Your task to perform on an android device: Check the news Image 0: 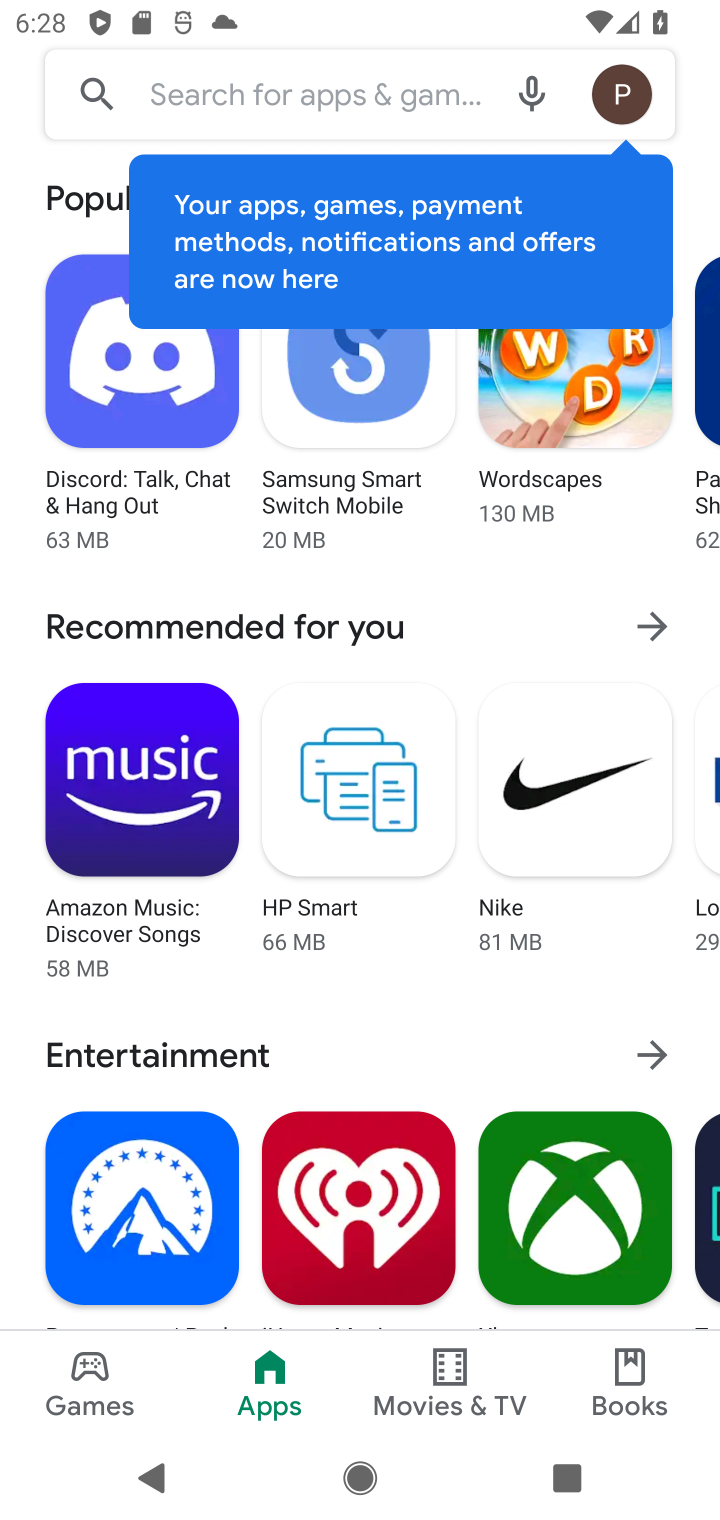
Step 0: press home button
Your task to perform on an android device: Check the news Image 1: 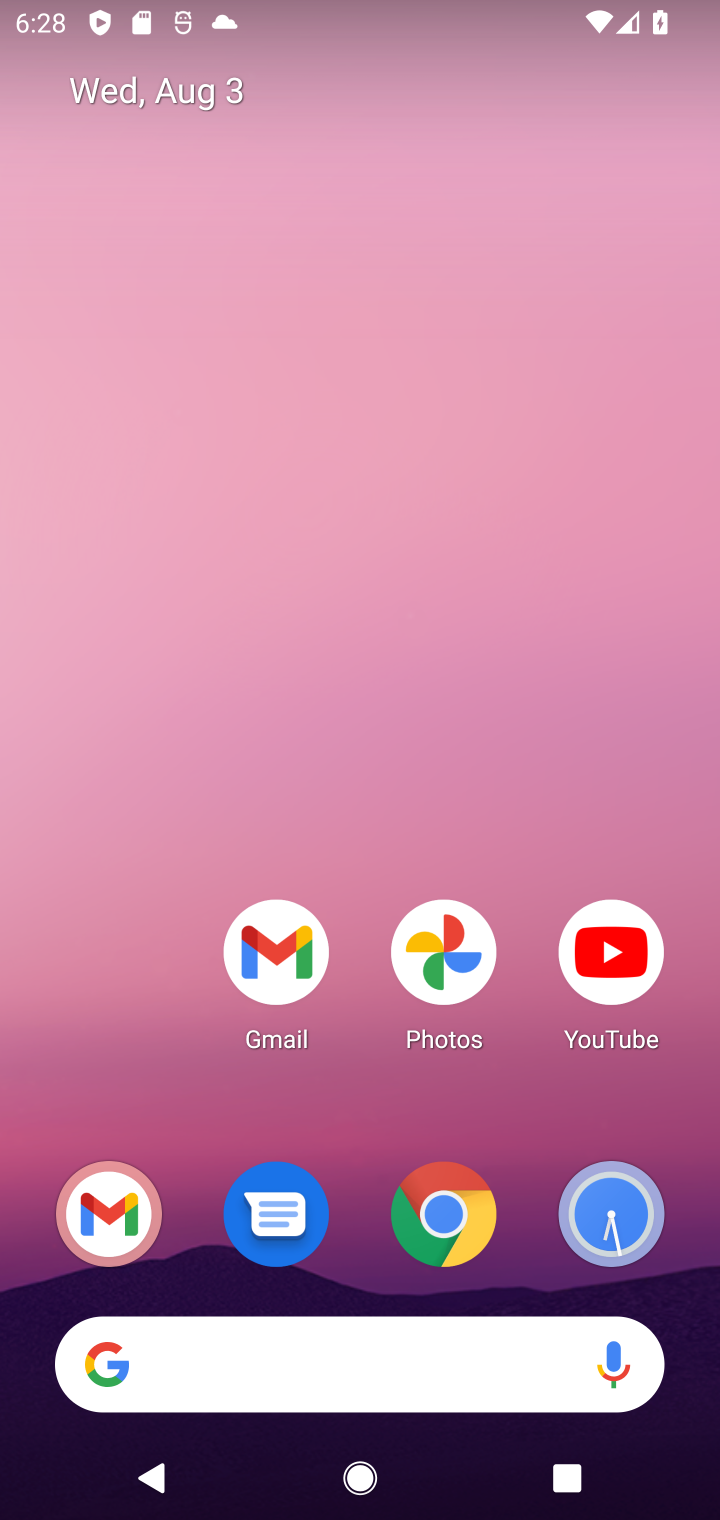
Step 1: drag from (27, 880) to (189, 23)
Your task to perform on an android device: Check the news Image 2: 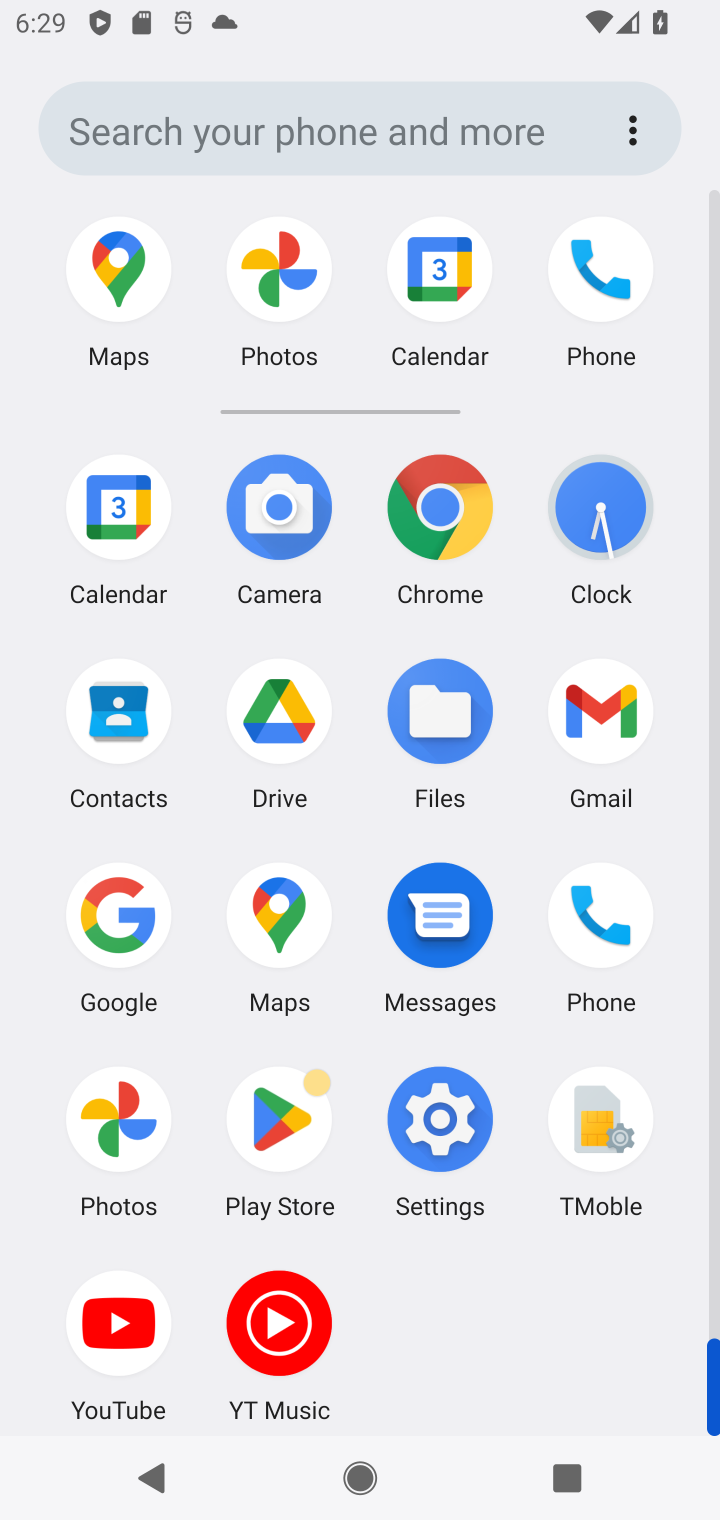
Step 2: click (430, 515)
Your task to perform on an android device: Check the news Image 3: 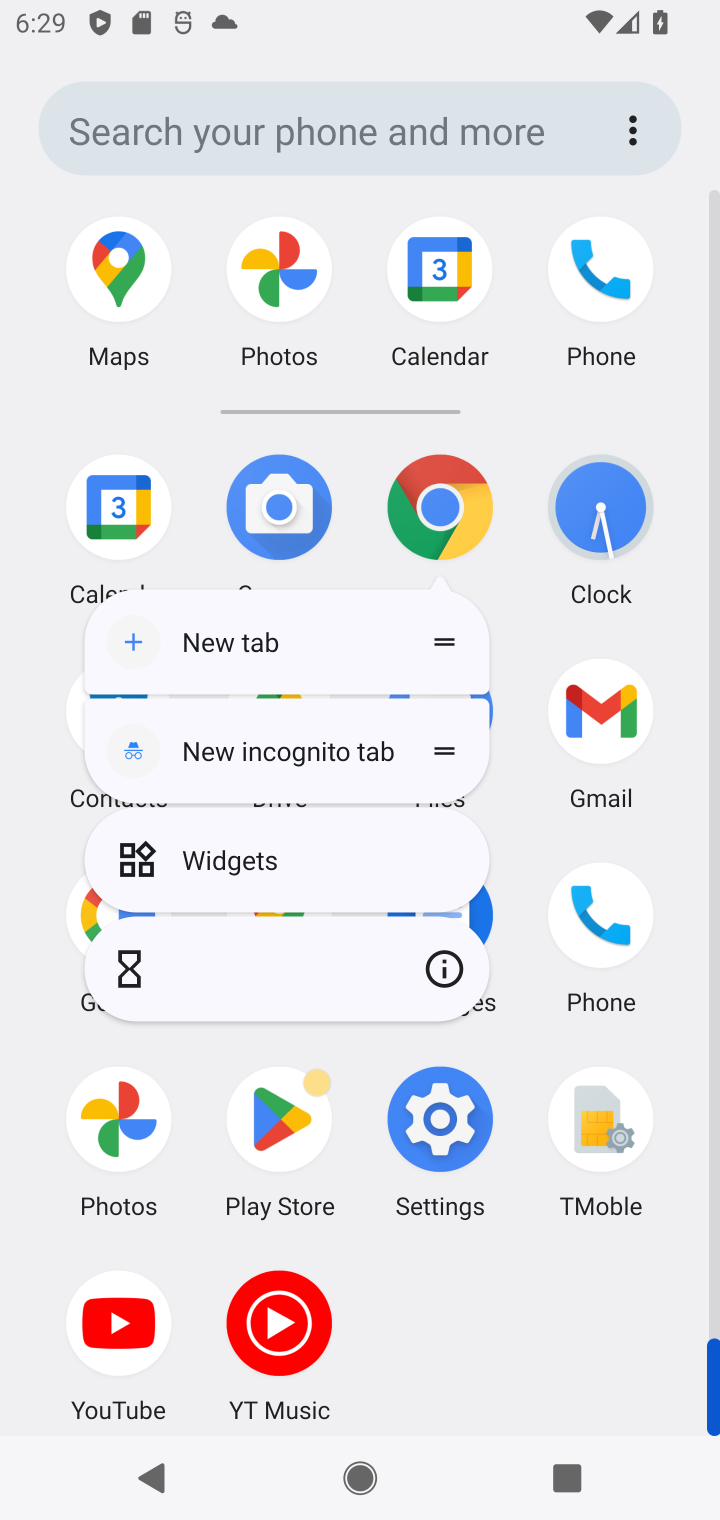
Step 3: click (430, 515)
Your task to perform on an android device: Check the news Image 4: 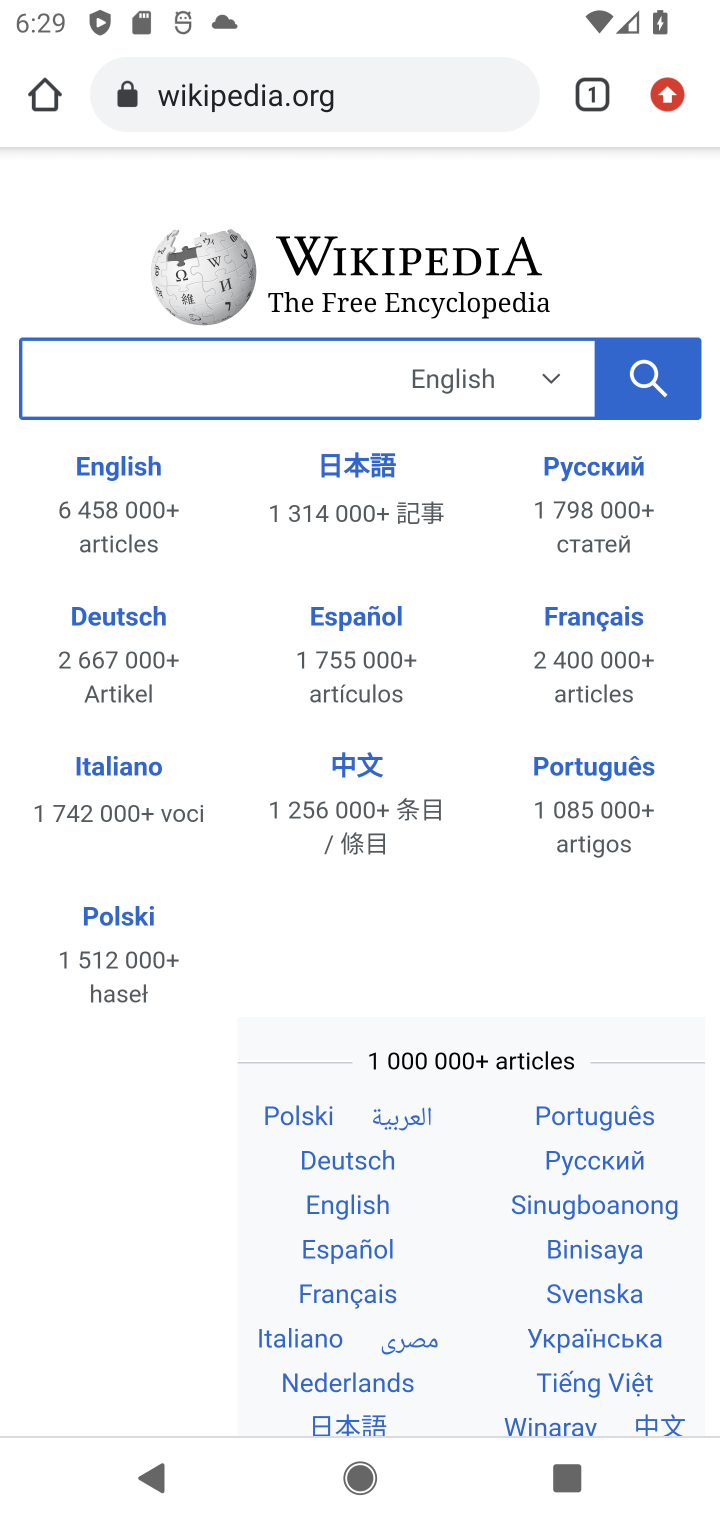
Step 4: task complete